Your task to perform on an android device: Show me popular videos on Youtube Image 0: 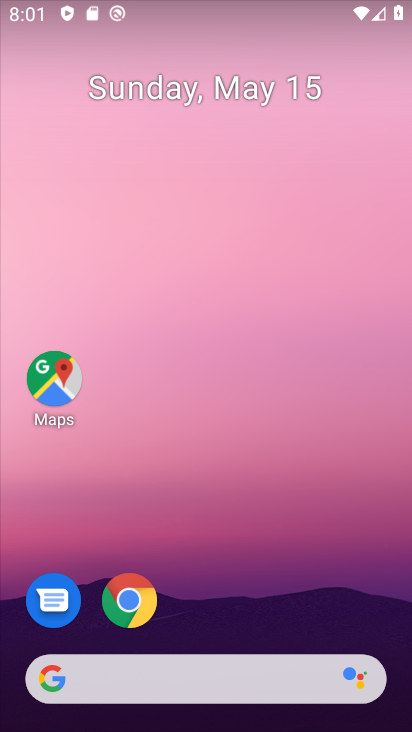
Step 0: drag from (229, 542) to (89, 99)
Your task to perform on an android device: Show me popular videos on Youtube Image 1: 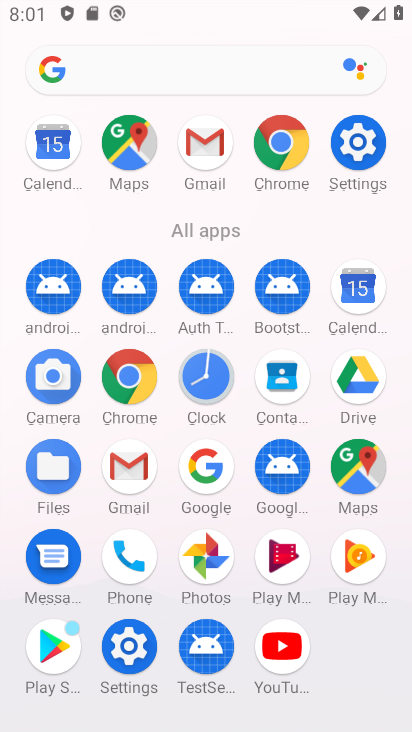
Step 1: click (281, 649)
Your task to perform on an android device: Show me popular videos on Youtube Image 2: 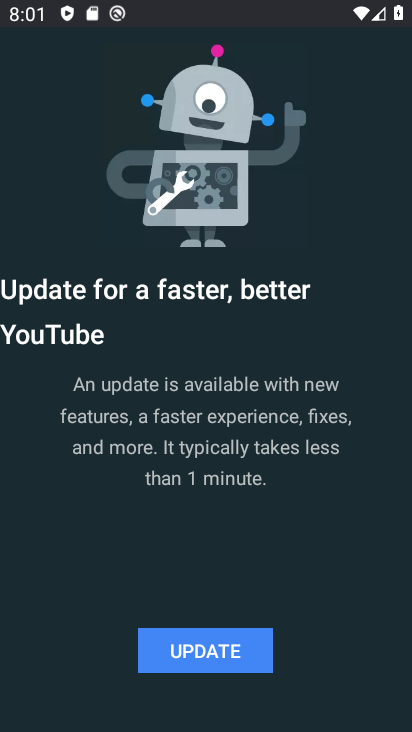
Step 2: click (218, 643)
Your task to perform on an android device: Show me popular videos on Youtube Image 3: 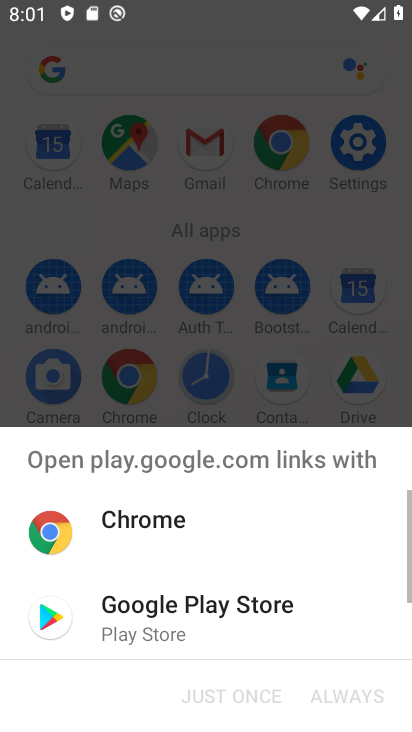
Step 3: click (138, 621)
Your task to perform on an android device: Show me popular videos on Youtube Image 4: 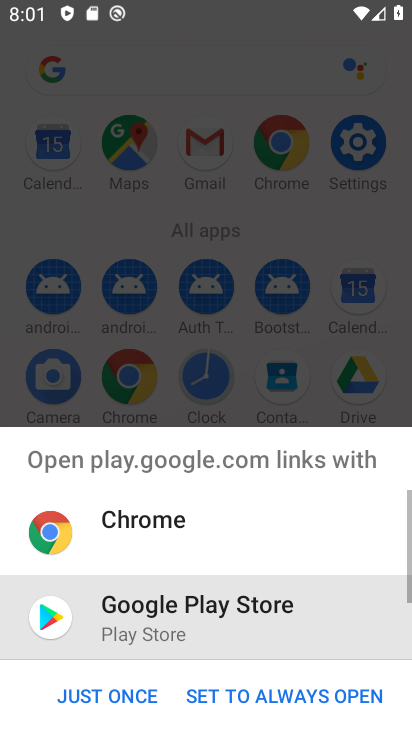
Step 4: click (96, 693)
Your task to perform on an android device: Show me popular videos on Youtube Image 5: 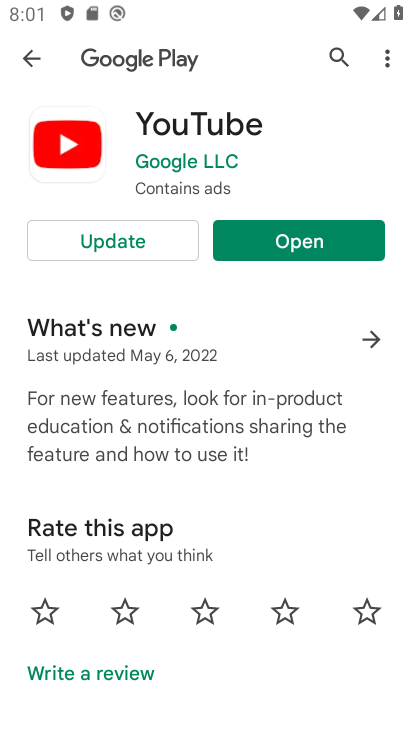
Step 5: click (131, 247)
Your task to perform on an android device: Show me popular videos on Youtube Image 6: 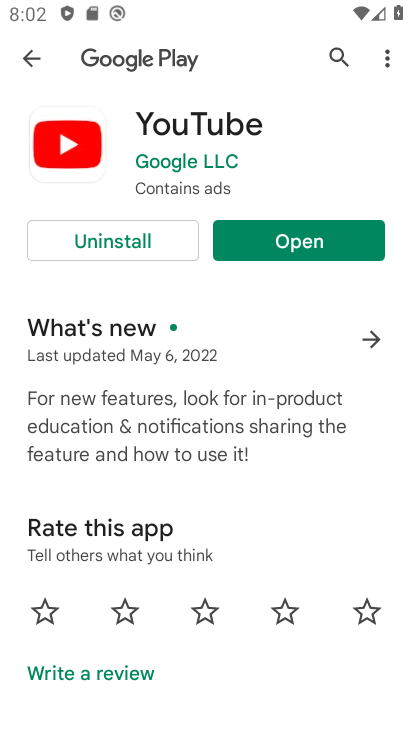
Step 6: click (239, 230)
Your task to perform on an android device: Show me popular videos on Youtube Image 7: 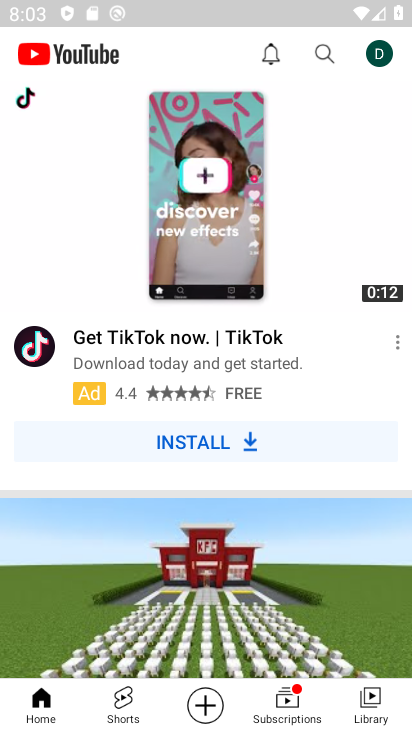
Step 7: drag from (329, 285) to (325, 461)
Your task to perform on an android device: Show me popular videos on Youtube Image 8: 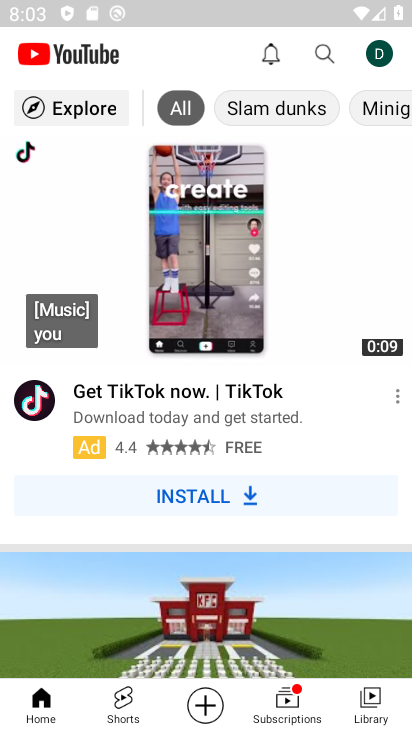
Step 8: click (64, 102)
Your task to perform on an android device: Show me popular videos on Youtube Image 9: 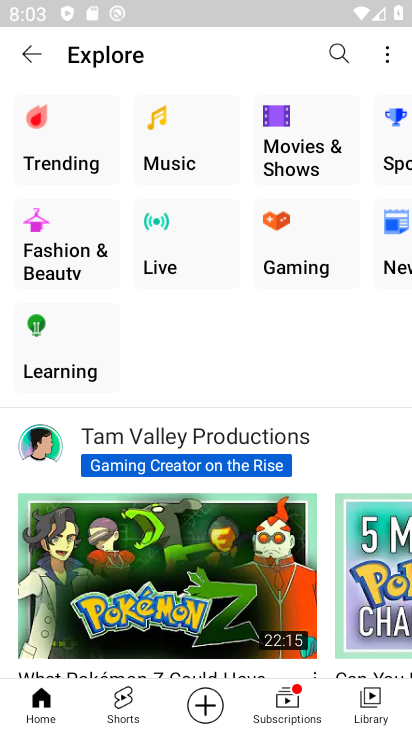
Step 9: click (64, 102)
Your task to perform on an android device: Show me popular videos on Youtube Image 10: 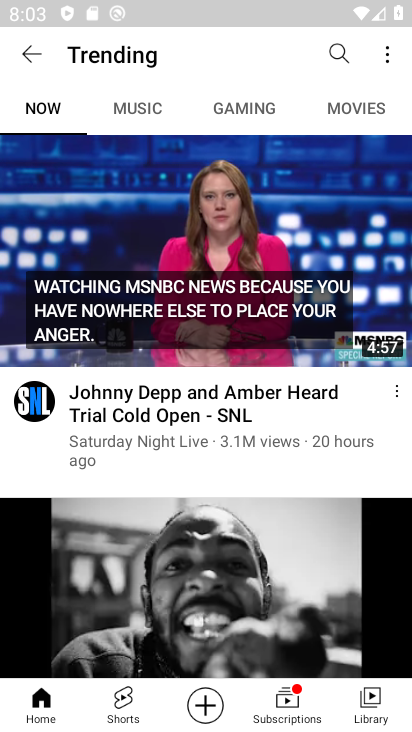
Step 10: task complete